Your task to perform on an android device: Show the shopping cart on costco.com. Add lenovo thinkpad to the cart on costco.com, then select checkout. Image 0: 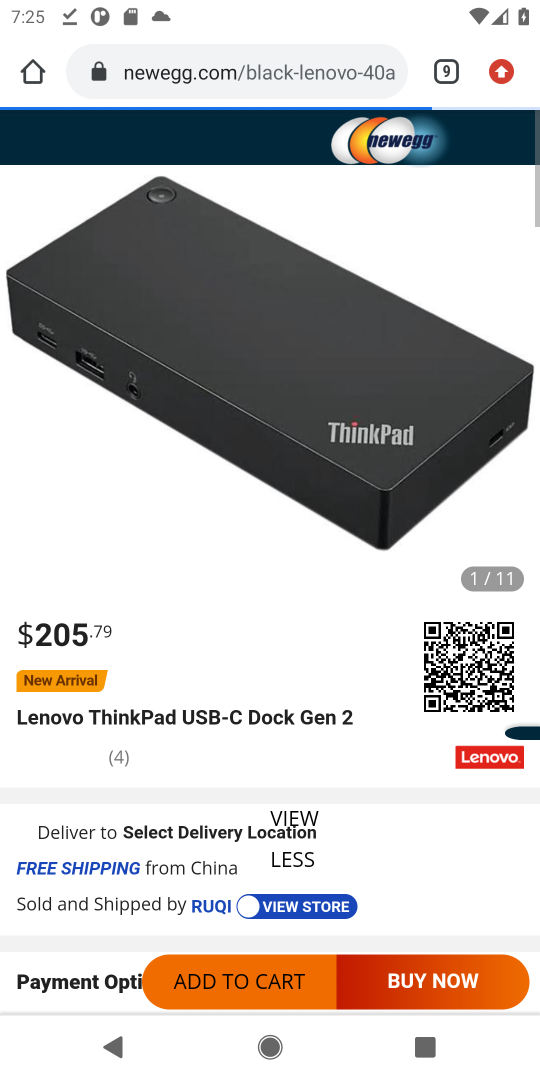
Step 0: press home button
Your task to perform on an android device: Show the shopping cart on costco.com. Add lenovo thinkpad to the cart on costco.com, then select checkout. Image 1: 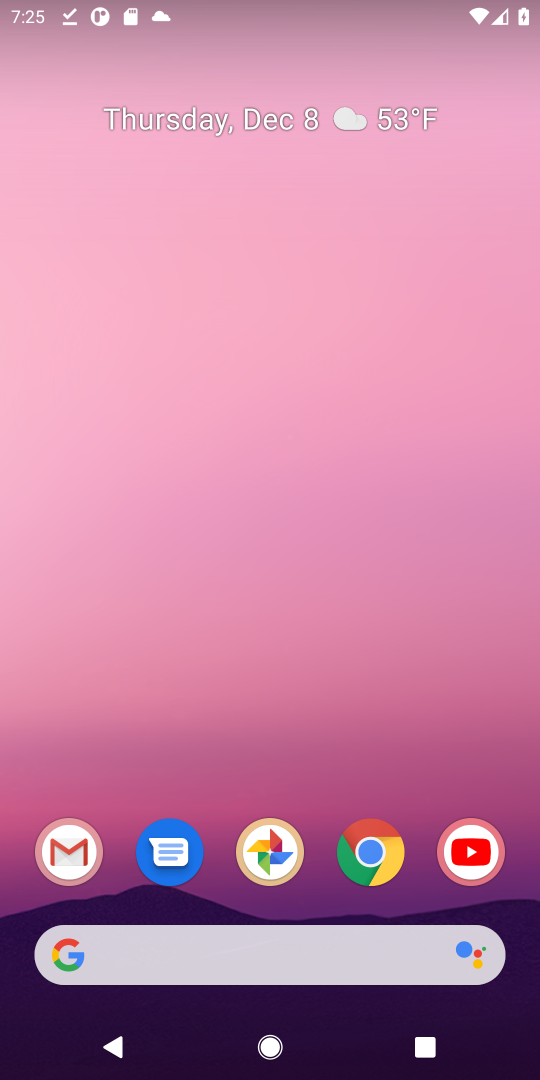
Step 1: click (297, 964)
Your task to perform on an android device: Show the shopping cart on costco.com. Add lenovo thinkpad to the cart on costco.com, then select checkout. Image 2: 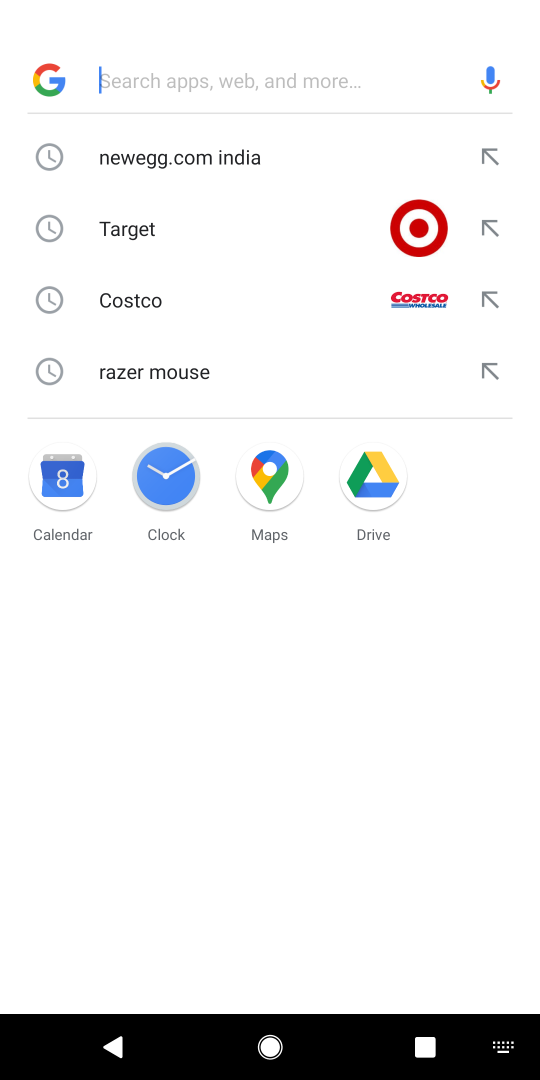
Step 2: click (190, 294)
Your task to perform on an android device: Show the shopping cart on costco.com. Add lenovo thinkpad to the cart on costco.com, then select checkout. Image 3: 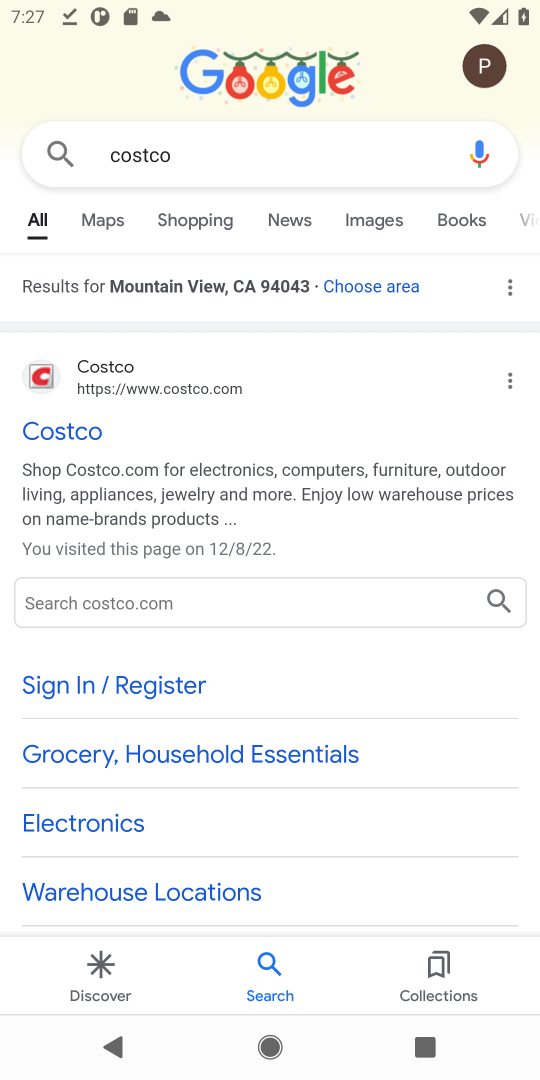
Step 3: click (64, 435)
Your task to perform on an android device: Show the shopping cart on costco.com. Add lenovo thinkpad to the cart on costco.com, then select checkout. Image 4: 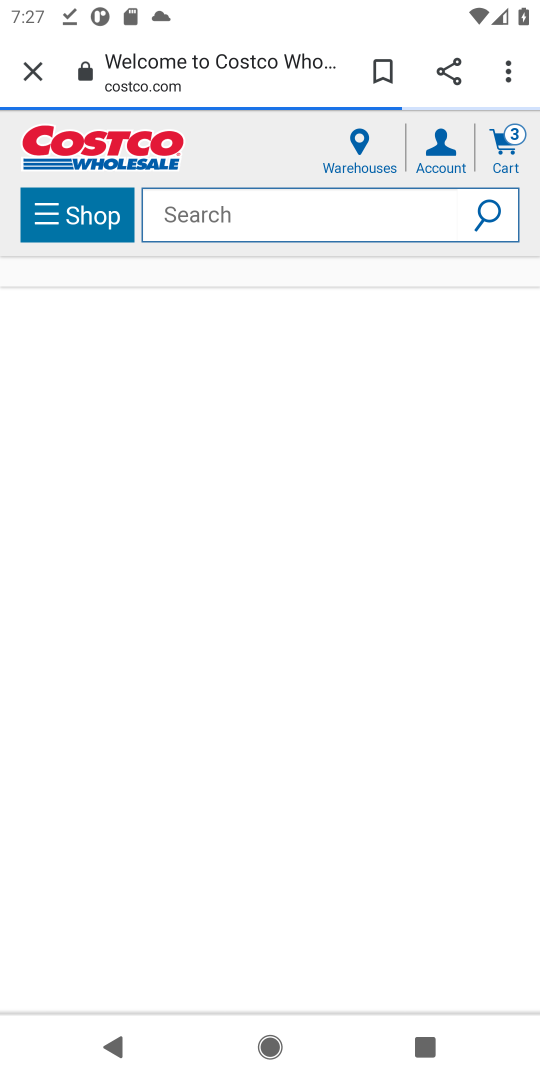
Step 4: click (269, 233)
Your task to perform on an android device: Show the shopping cart on costco.com. Add lenovo thinkpad to the cart on costco.com, then select checkout. Image 5: 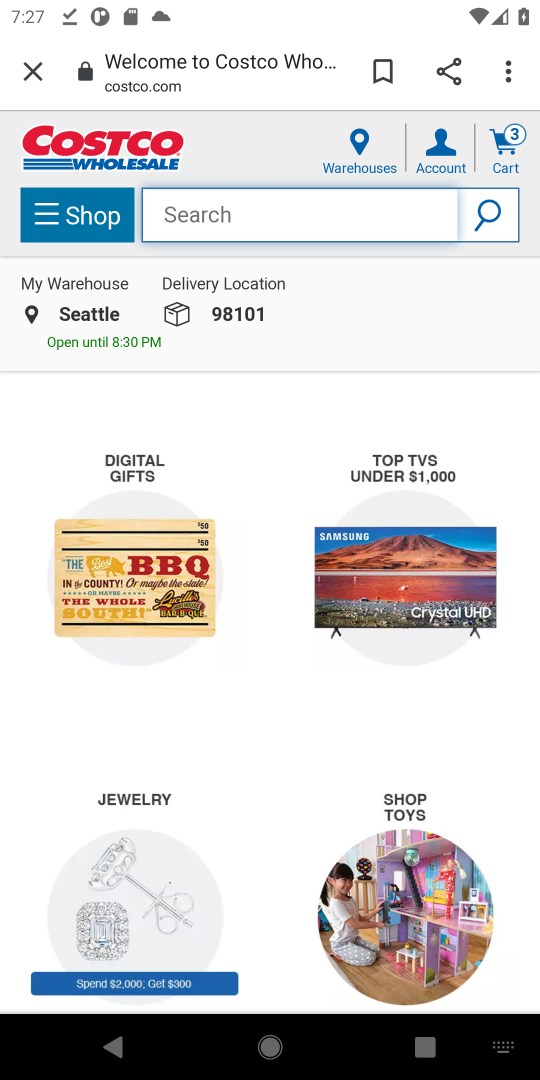
Step 5: type "lenovo think pad"
Your task to perform on an android device: Show the shopping cart on costco.com. Add lenovo thinkpad to the cart on costco.com, then select checkout. Image 6: 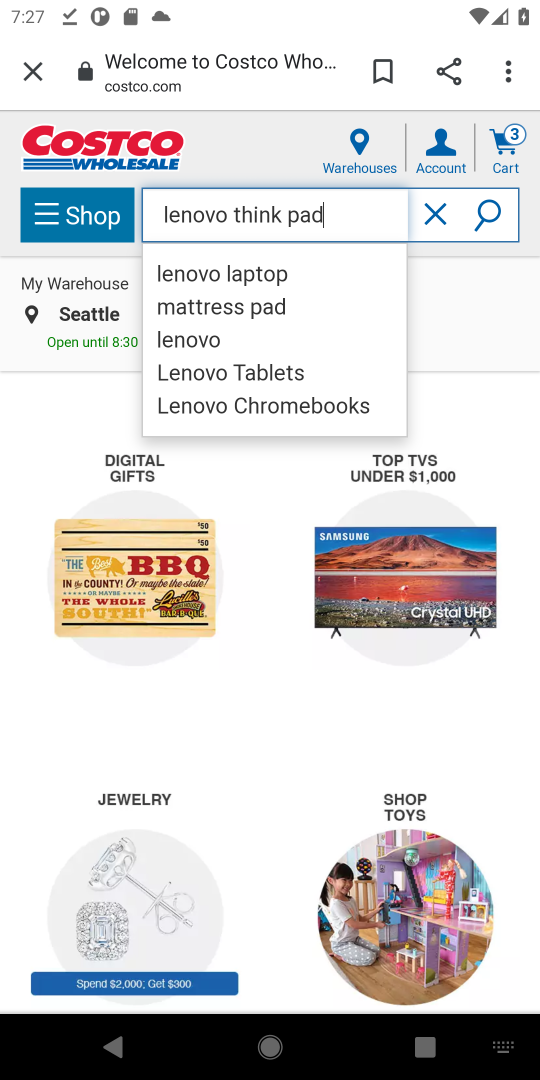
Step 6: click (496, 219)
Your task to perform on an android device: Show the shopping cart on costco.com. Add lenovo thinkpad to the cart on costco.com, then select checkout. Image 7: 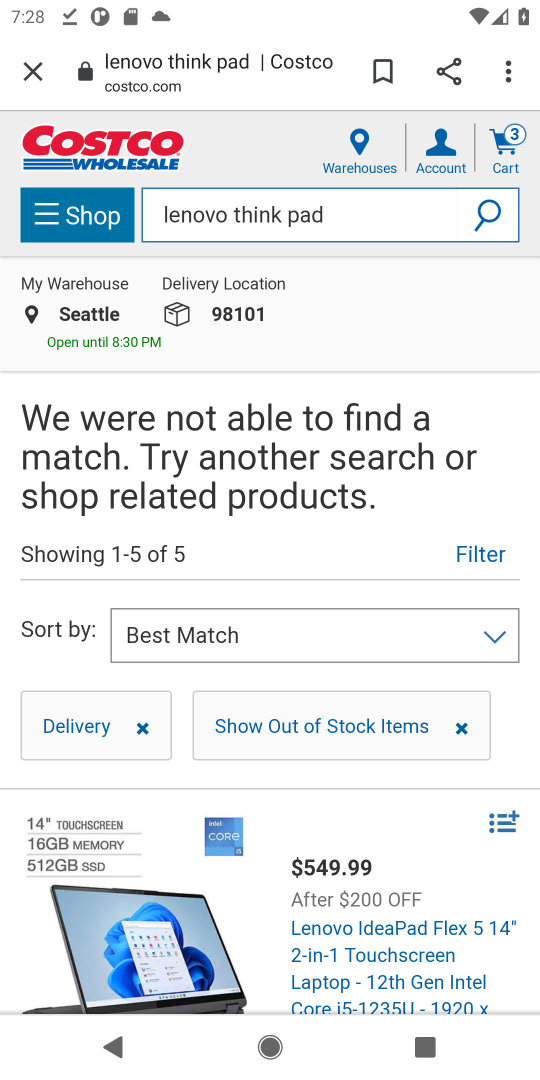
Step 7: click (352, 870)
Your task to perform on an android device: Show the shopping cart on costco.com. Add lenovo thinkpad to the cart on costco.com, then select checkout. Image 8: 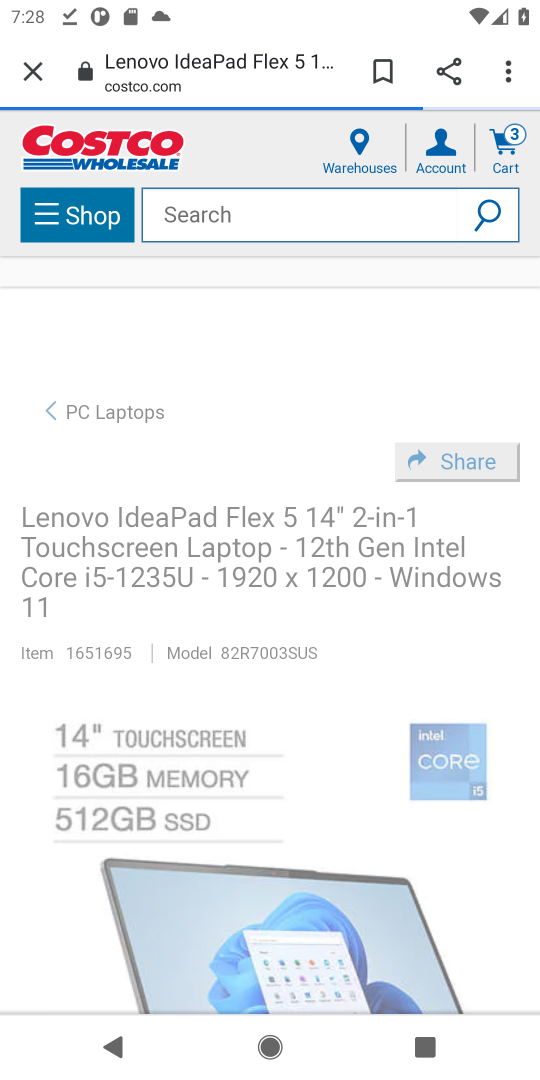
Step 8: task complete